Your task to perform on an android device: Toggle the flashlight Image 0: 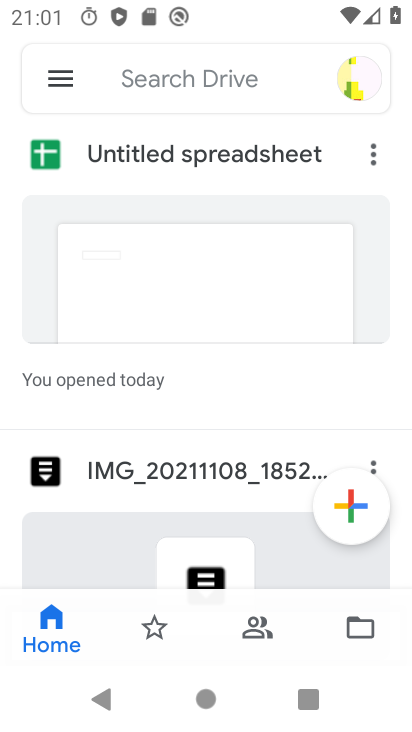
Step 0: press home button
Your task to perform on an android device: Toggle the flashlight Image 1: 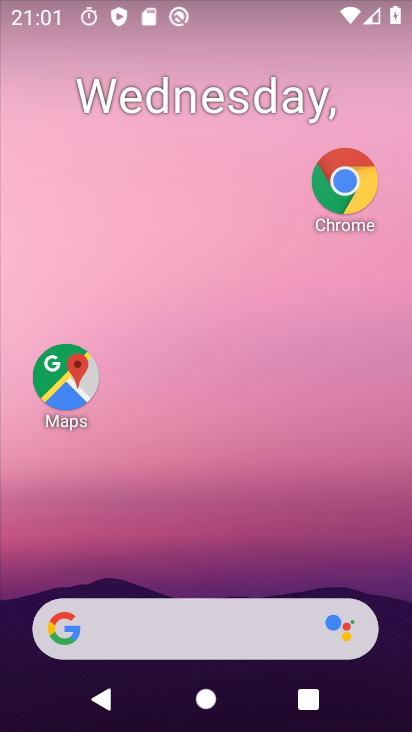
Step 1: drag from (255, 677) to (259, 346)
Your task to perform on an android device: Toggle the flashlight Image 2: 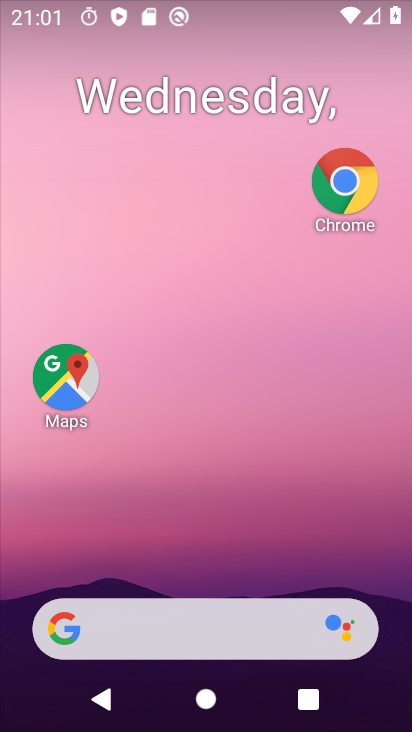
Step 2: drag from (238, 670) to (282, 309)
Your task to perform on an android device: Toggle the flashlight Image 3: 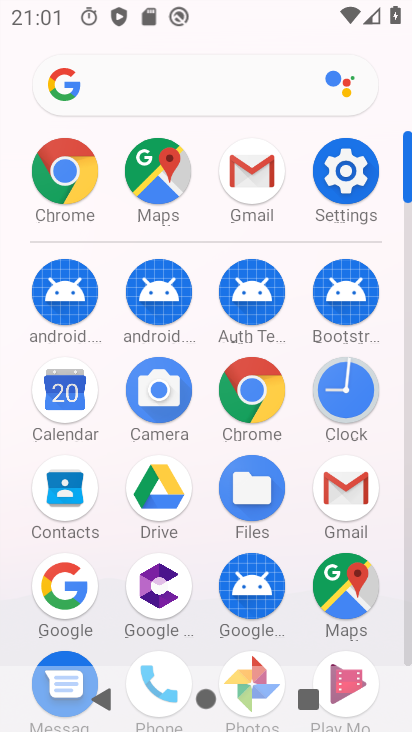
Step 3: click (353, 181)
Your task to perform on an android device: Toggle the flashlight Image 4: 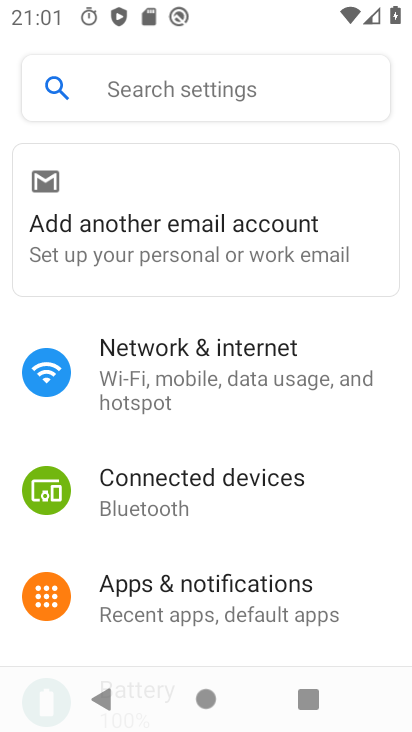
Step 4: click (171, 95)
Your task to perform on an android device: Toggle the flashlight Image 5: 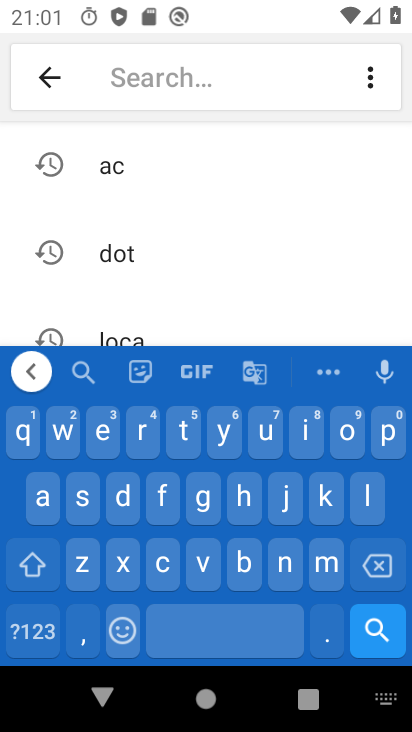
Step 5: click (156, 500)
Your task to perform on an android device: Toggle the flashlight Image 6: 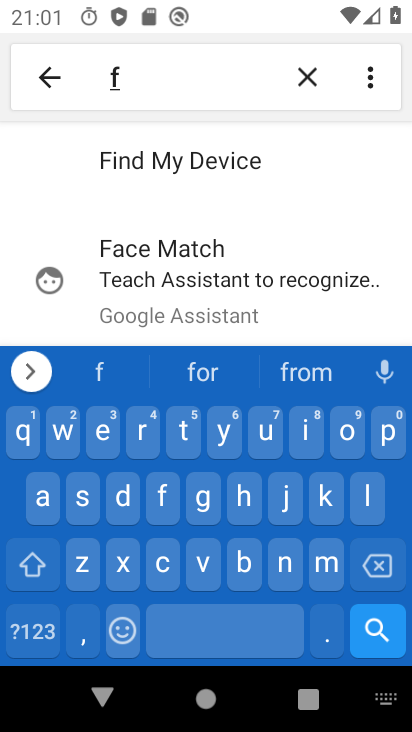
Step 6: click (371, 502)
Your task to perform on an android device: Toggle the flashlight Image 7: 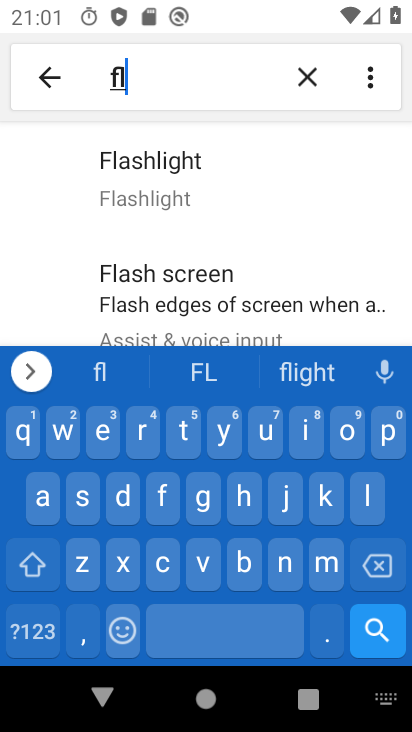
Step 7: click (230, 193)
Your task to perform on an android device: Toggle the flashlight Image 8: 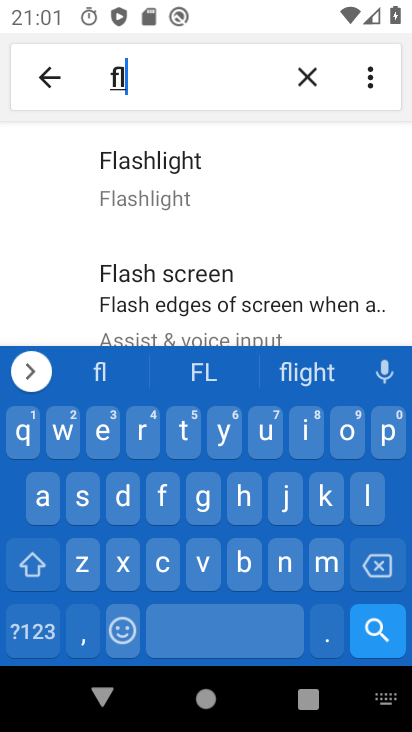
Step 8: task complete